Your task to perform on an android device: Play the last video I watched on Youtube Image 0: 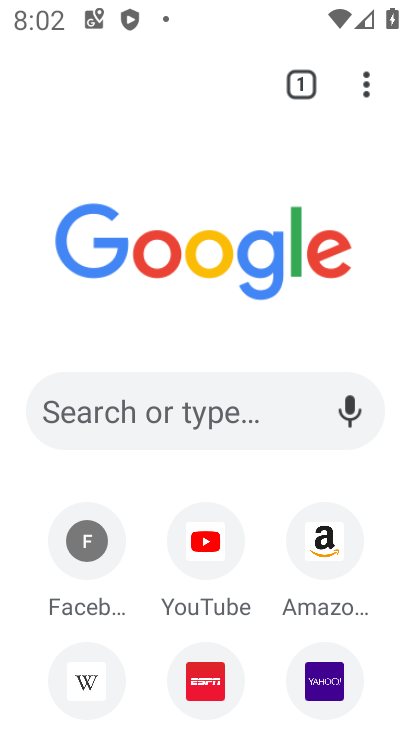
Step 0: press home button
Your task to perform on an android device: Play the last video I watched on Youtube Image 1: 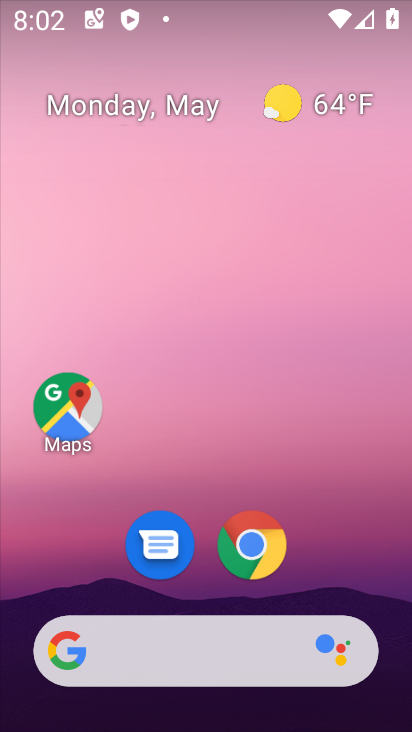
Step 1: drag from (207, 639) to (77, 30)
Your task to perform on an android device: Play the last video I watched on Youtube Image 2: 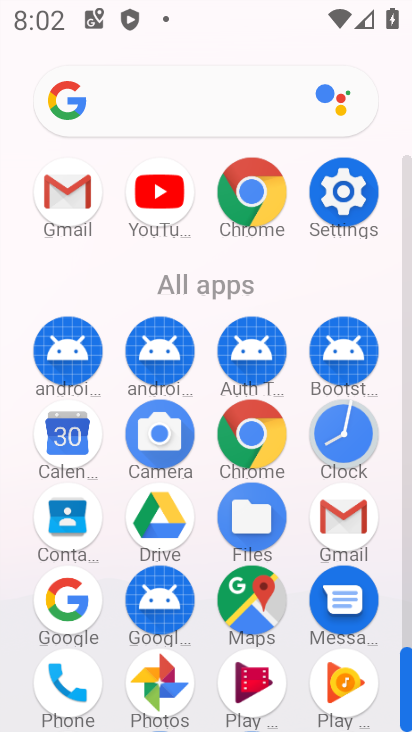
Step 2: click (145, 212)
Your task to perform on an android device: Play the last video I watched on Youtube Image 3: 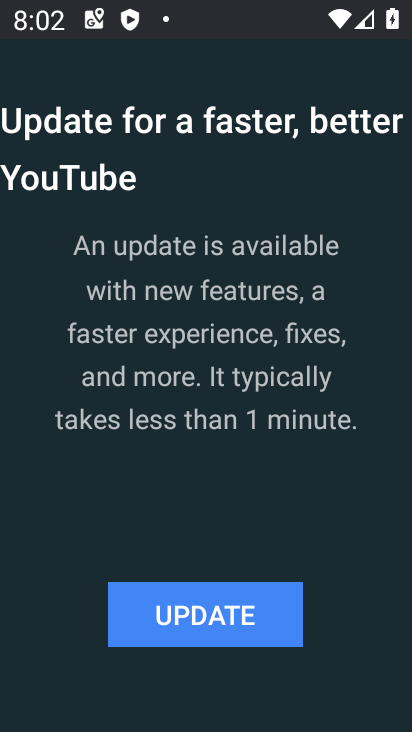
Step 3: click (163, 630)
Your task to perform on an android device: Play the last video I watched on Youtube Image 4: 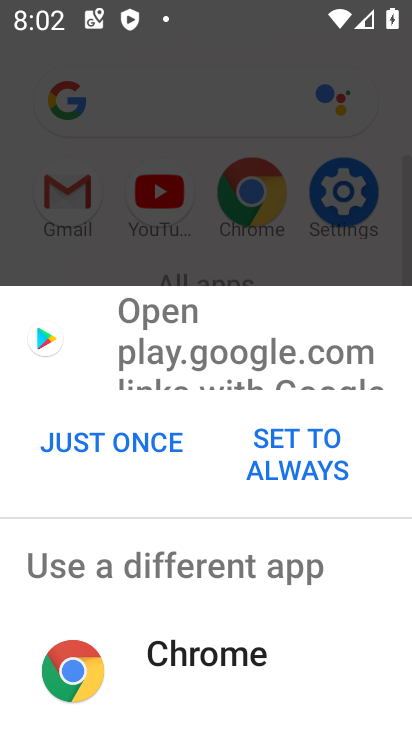
Step 4: click (92, 442)
Your task to perform on an android device: Play the last video I watched on Youtube Image 5: 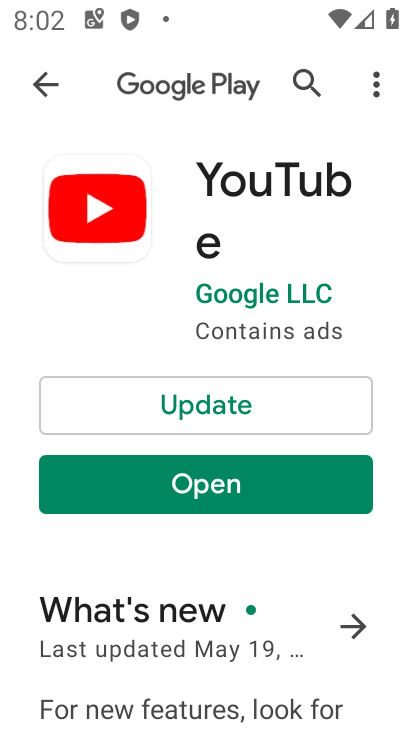
Step 5: click (162, 413)
Your task to perform on an android device: Play the last video I watched on Youtube Image 6: 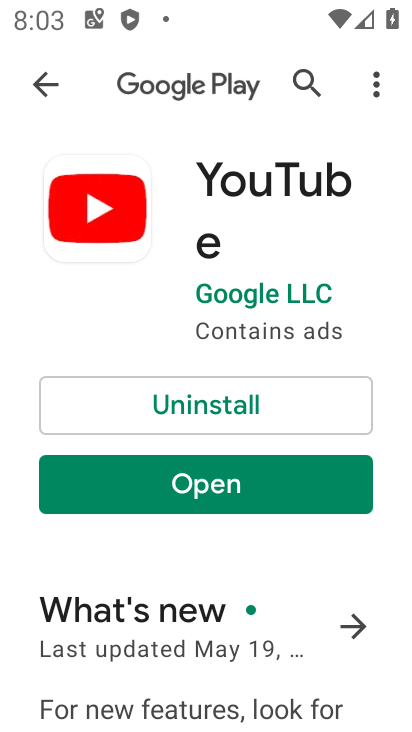
Step 6: click (217, 490)
Your task to perform on an android device: Play the last video I watched on Youtube Image 7: 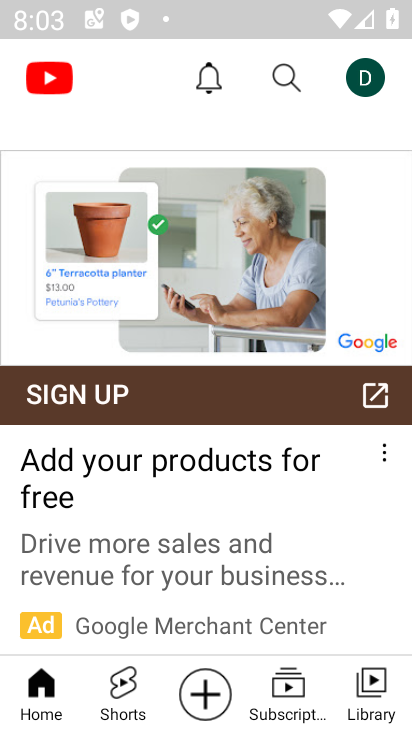
Step 7: click (372, 692)
Your task to perform on an android device: Play the last video I watched on Youtube Image 8: 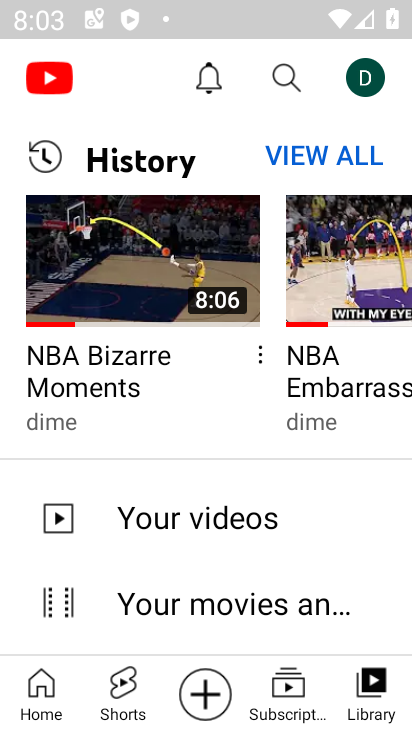
Step 8: click (121, 256)
Your task to perform on an android device: Play the last video I watched on Youtube Image 9: 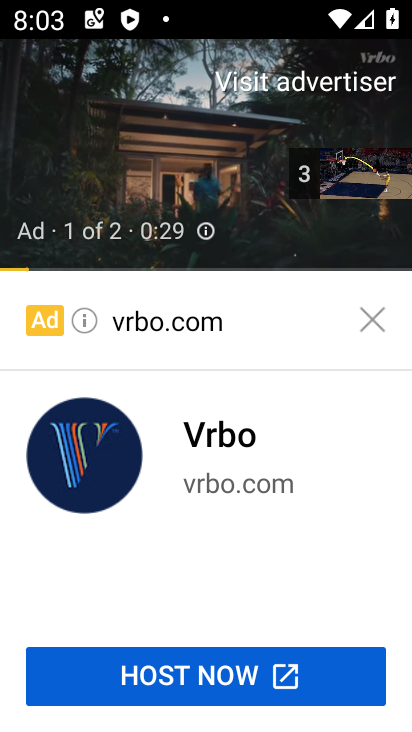
Step 9: task complete